Your task to perform on an android device: Open Youtube and go to the subscriptions tab Image 0: 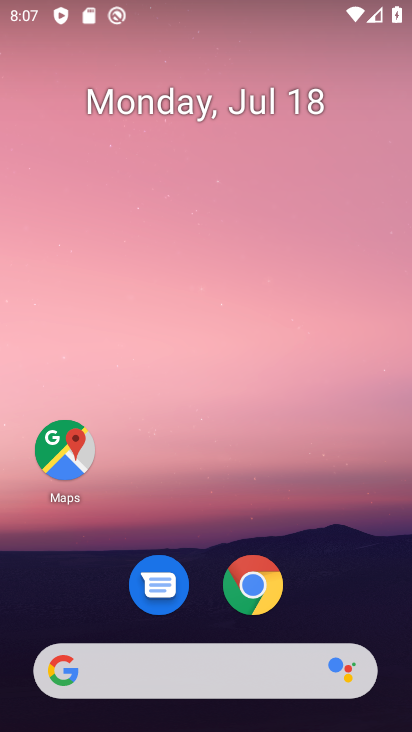
Step 0: press home button
Your task to perform on an android device: Open Youtube and go to the subscriptions tab Image 1: 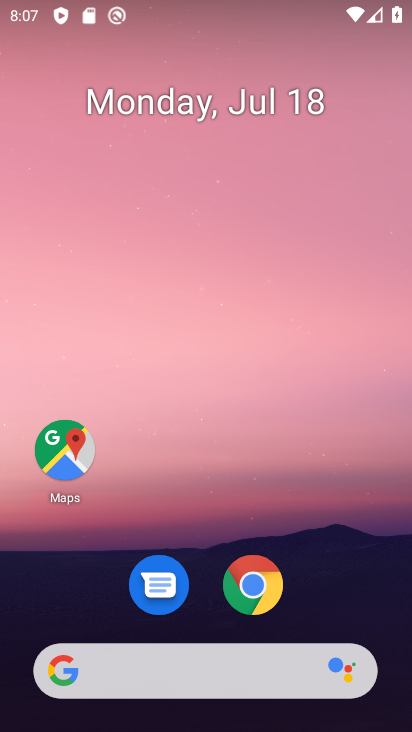
Step 1: drag from (184, 682) to (286, 302)
Your task to perform on an android device: Open Youtube and go to the subscriptions tab Image 2: 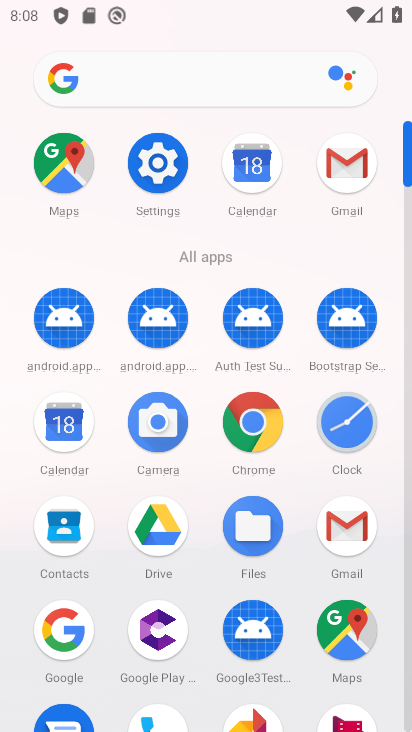
Step 2: drag from (207, 631) to (406, 115)
Your task to perform on an android device: Open Youtube and go to the subscriptions tab Image 3: 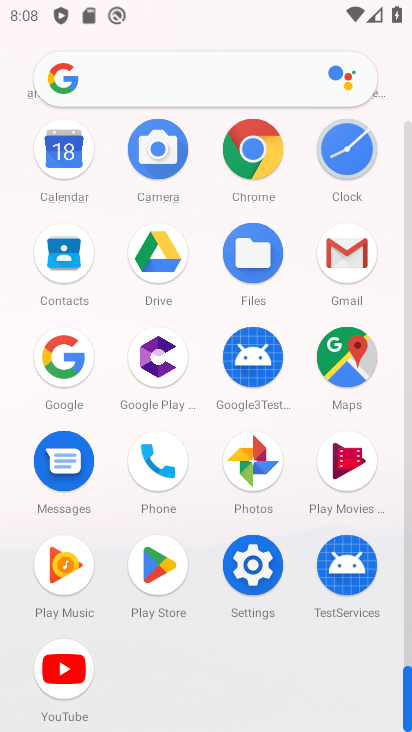
Step 3: click (70, 678)
Your task to perform on an android device: Open Youtube and go to the subscriptions tab Image 4: 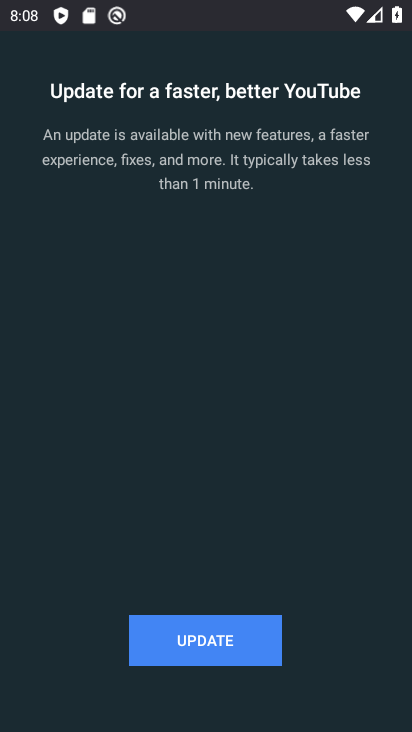
Step 4: click (197, 640)
Your task to perform on an android device: Open Youtube and go to the subscriptions tab Image 5: 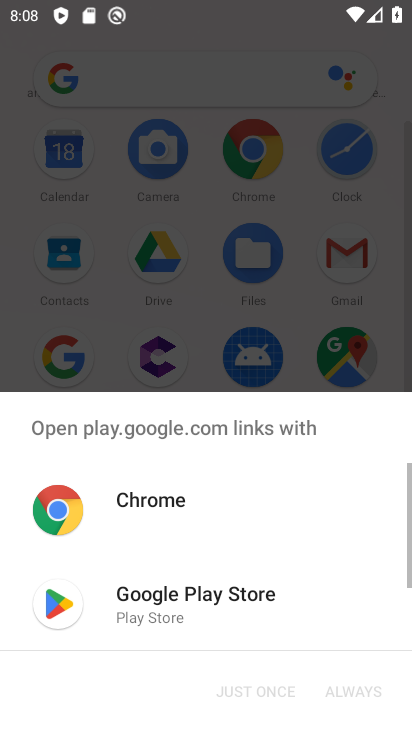
Step 5: click (193, 603)
Your task to perform on an android device: Open Youtube and go to the subscriptions tab Image 6: 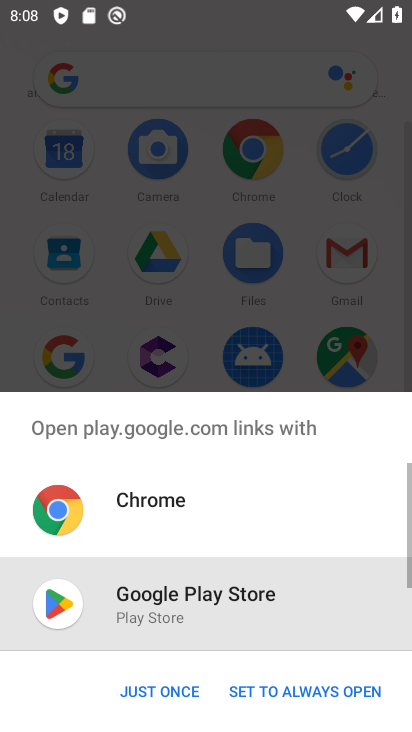
Step 6: click (159, 688)
Your task to perform on an android device: Open Youtube and go to the subscriptions tab Image 7: 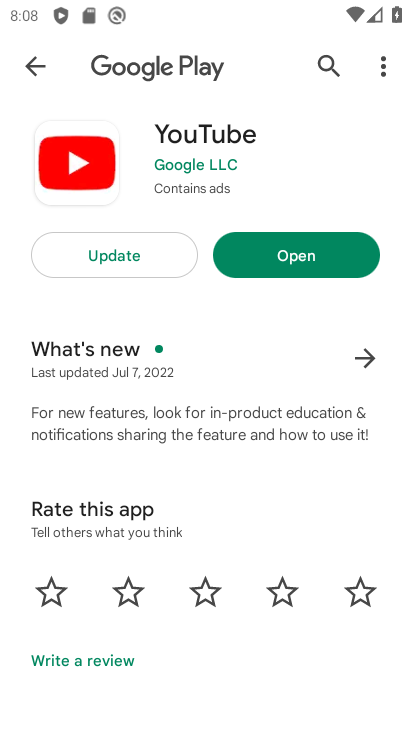
Step 7: click (141, 254)
Your task to perform on an android device: Open Youtube and go to the subscriptions tab Image 8: 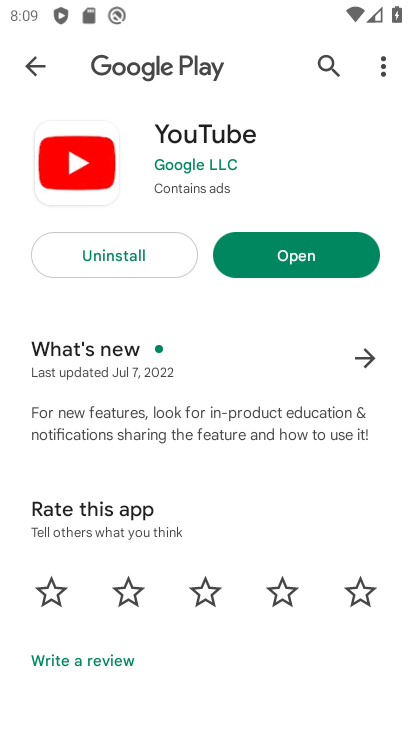
Step 8: click (307, 255)
Your task to perform on an android device: Open Youtube and go to the subscriptions tab Image 9: 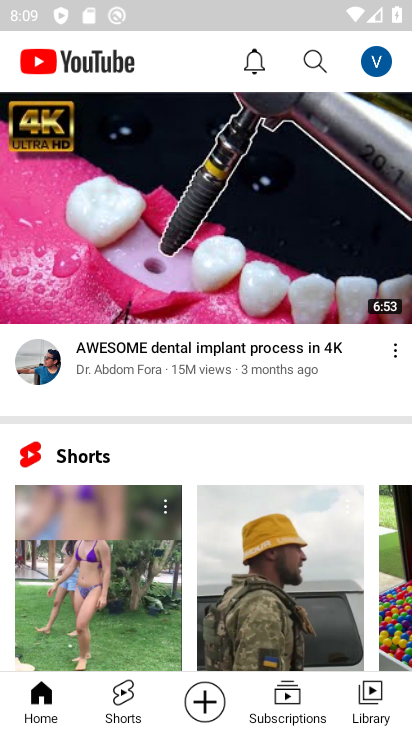
Step 9: click (292, 689)
Your task to perform on an android device: Open Youtube and go to the subscriptions tab Image 10: 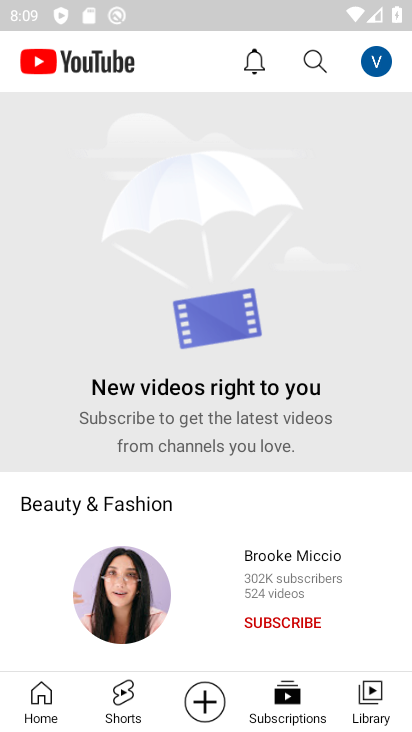
Step 10: task complete